Your task to perform on an android device: Open calendar and show me the fourth week of next month Image 0: 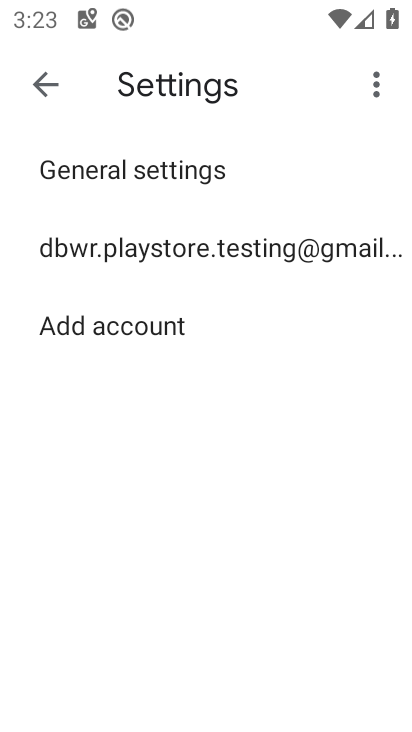
Step 0: press home button
Your task to perform on an android device: Open calendar and show me the fourth week of next month Image 1: 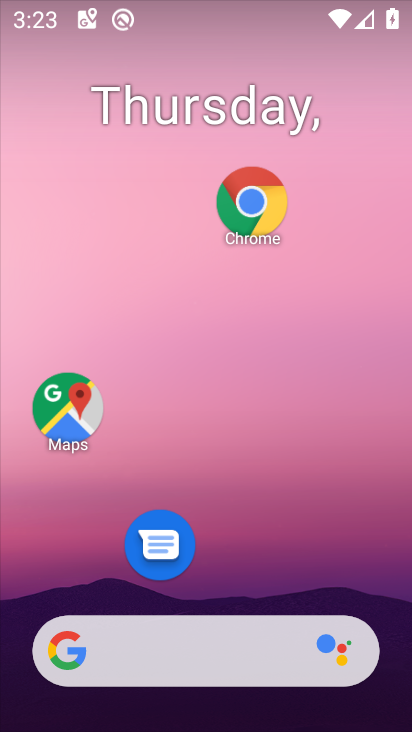
Step 1: drag from (155, 621) to (218, 124)
Your task to perform on an android device: Open calendar and show me the fourth week of next month Image 2: 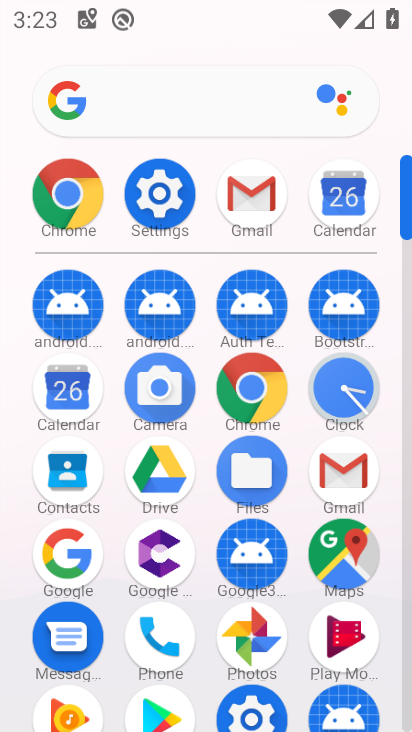
Step 2: click (336, 189)
Your task to perform on an android device: Open calendar and show me the fourth week of next month Image 3: 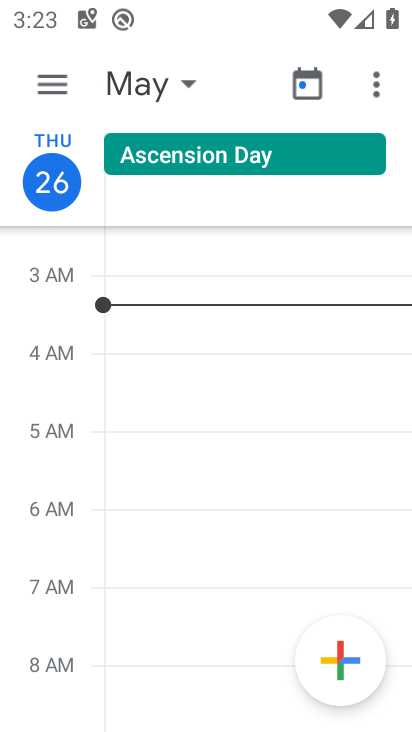
Step 3: click (161, 85)
Your task to perform on an android device: Open calendar and show me the fourth week of next month Image 4: 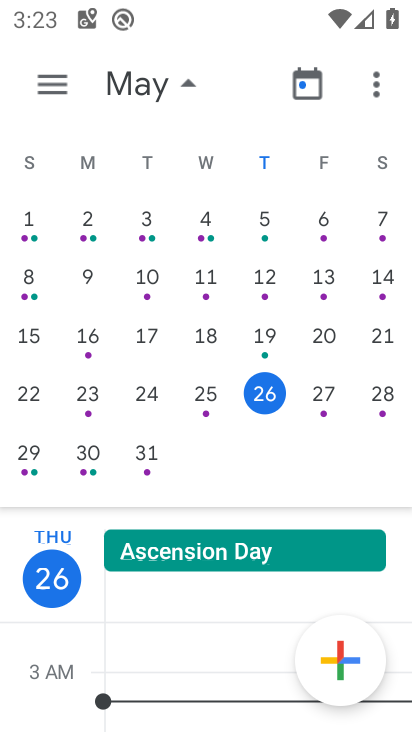
Step 4: drag from (325, 328) to (57, 326)
Your task to perform on an android device: Open calendar and show me the fourth week of next month Image 5: 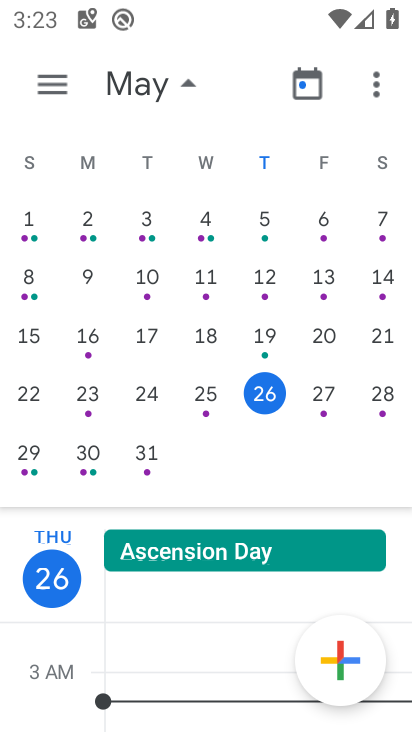
Step 5: drag from (388, 307) to (5, 412)
Your task to perform on an android device: Open calendar and show me the fourth week of next month Image 6: 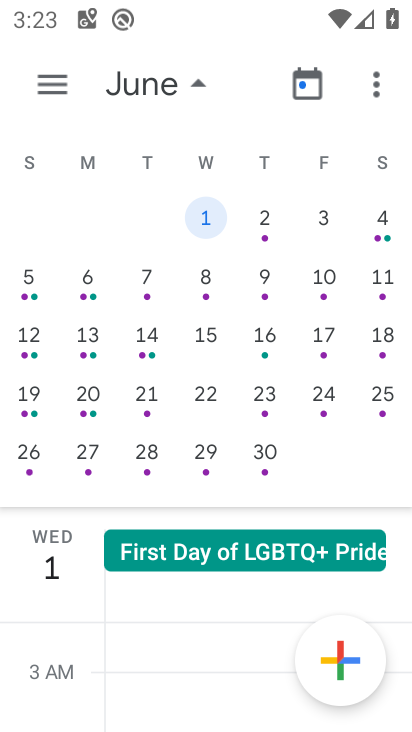
Step 6: click (31, 401)
Your task to perform on an android device: Open calendar and show me the fourth week of next month Image 7: 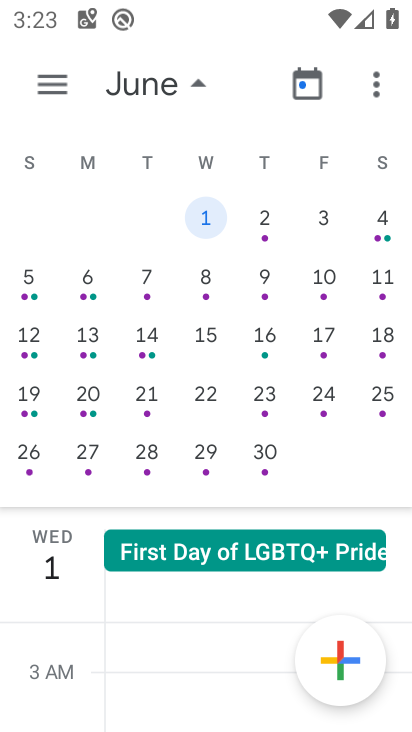
Step 7: click (39, 404)
Your task to perform on an android device: Open calendar and show me the fourth week of next month Image 8: 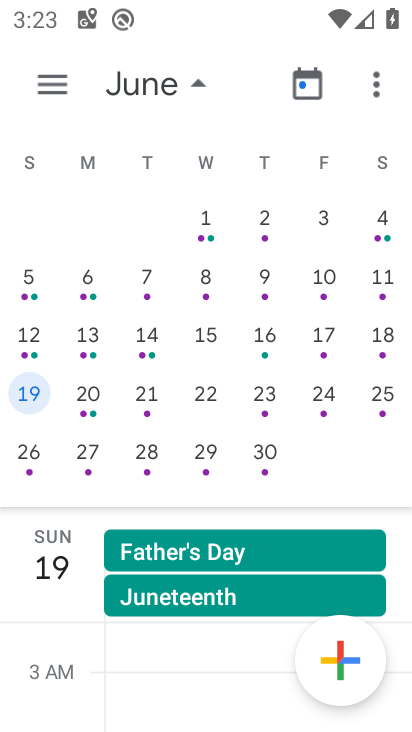
Step 8: task complete